Your task to perform on an android device: toggle pop-ups in chrome Image 0: 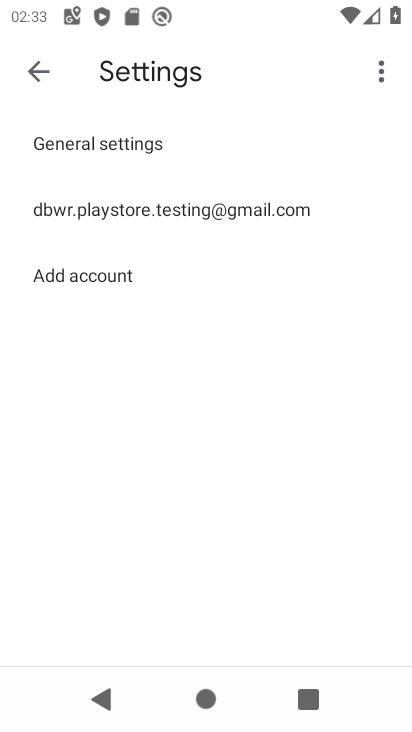
Step 0: click (226, 507)
Your task to perform on an android device: toggle pop-ups in chrome Image 1: 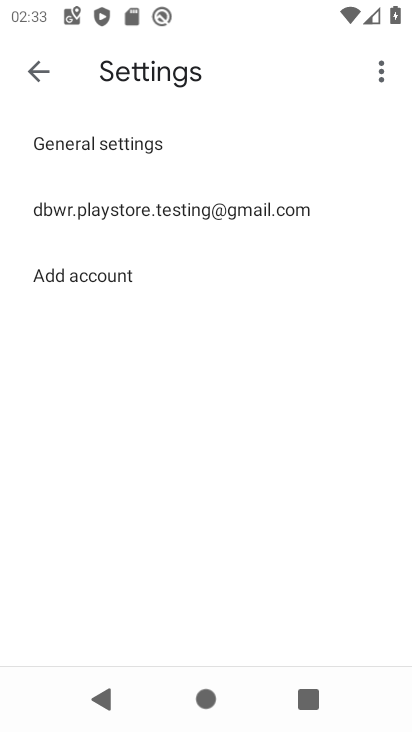
Step 1: press home button
Your task to perform on an android device: toggle pop-ups in chrome Image 2: 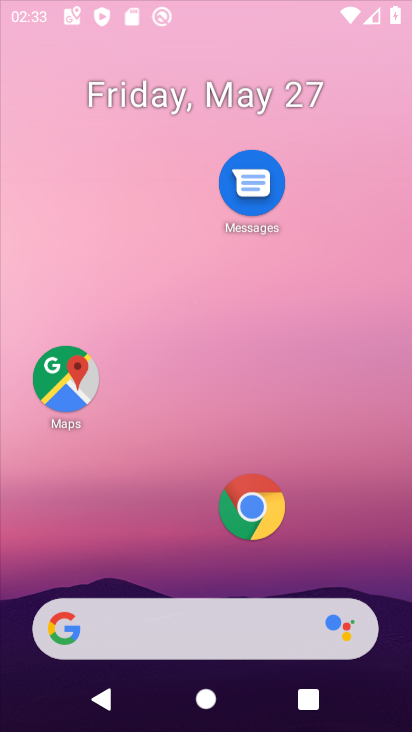
Step 2: drag from (203, 594) to (237, 117)
Your task to perform on an android device: toggle pop-ups in chrome Image 3: 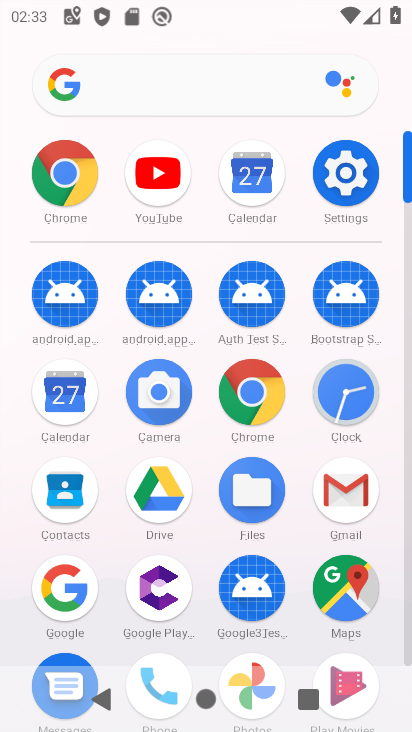
Step 3: click (244, 391)
Your task to perform on an android device: toggle pop-ups in chrome Image 4: 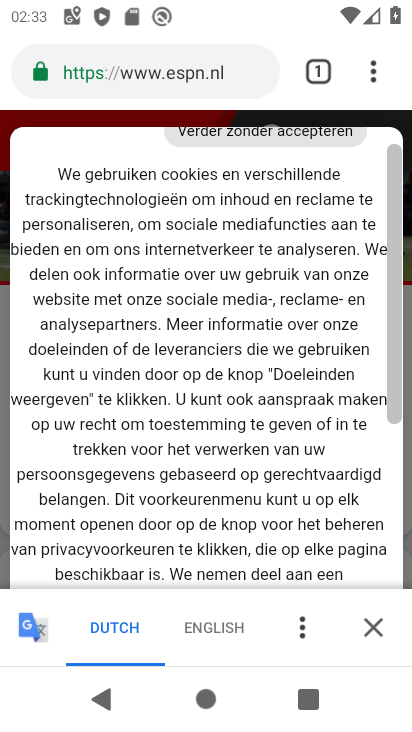
Step 4: click (370, 72)
Your task to perform on an android device: toggle pop-ups in chrome Image 5: 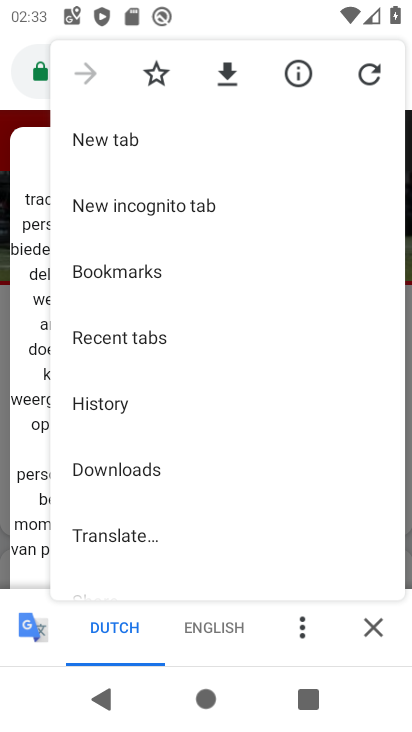
Step 5: drag from (166, 460) to (209, 206)
Your task to perform on an android device: toggle pop-ups in chrome Image 6: 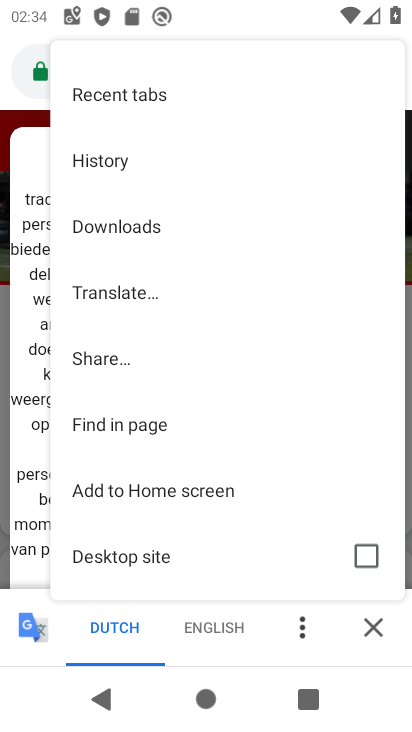
Step 6: drag from (179, 442) to (266, 192)
Your task to perform on an android device: toggle pop-ups in chrome Image 7: 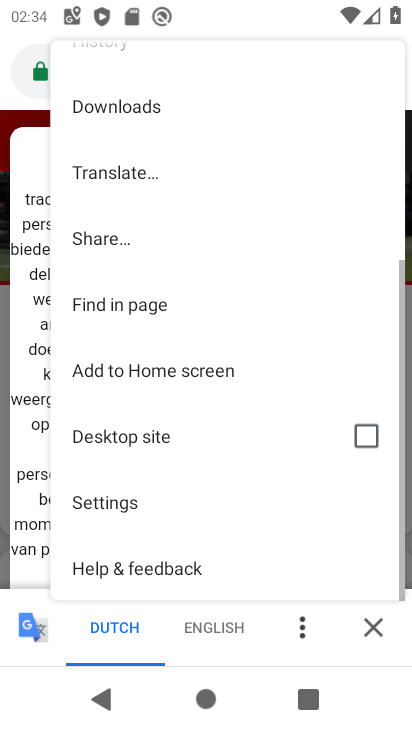
Step 7: click (172, 515)
Your task to perform on an android device: toggle pop-ups in chrome Image 8: 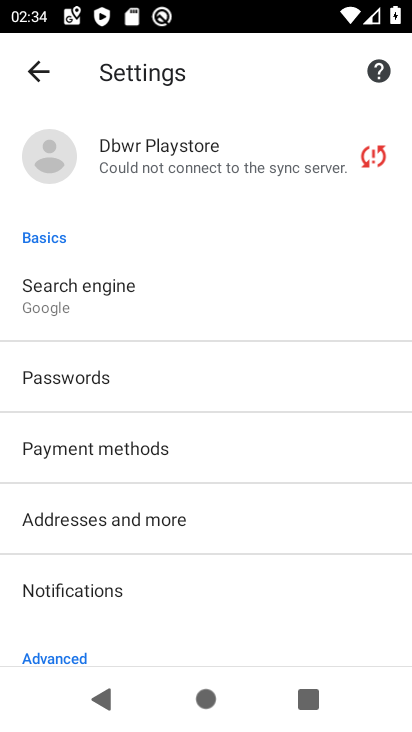
Step 8: drag from (174, 530) to (230, 296)
Your task to perform on an android device: toggle pop-ups in chrome Image 9: 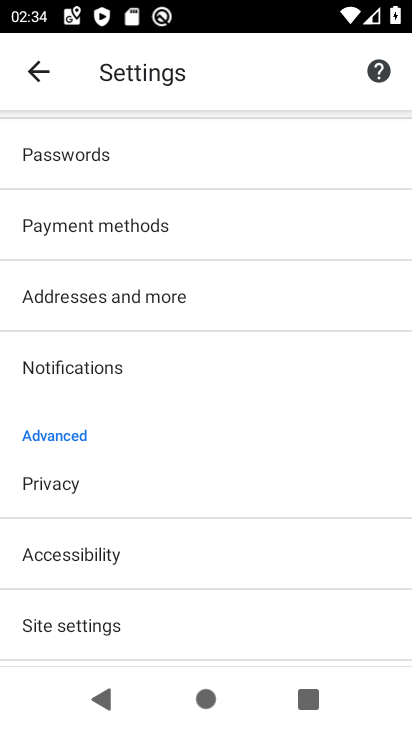
Step 9: drag from (158, 607) to (234, 263)
Your task to perform on an android device: toggle pop-ups in chrome Image 10: 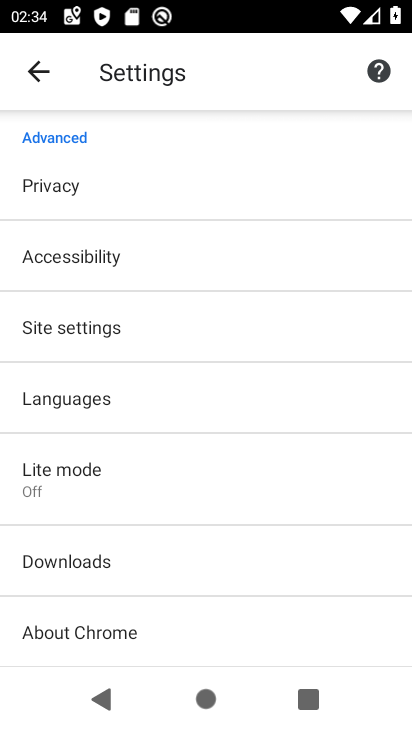
Step 10: click (168, 347)
Your task to perform on an android device: toggle pop-ups in chrome Image 11: 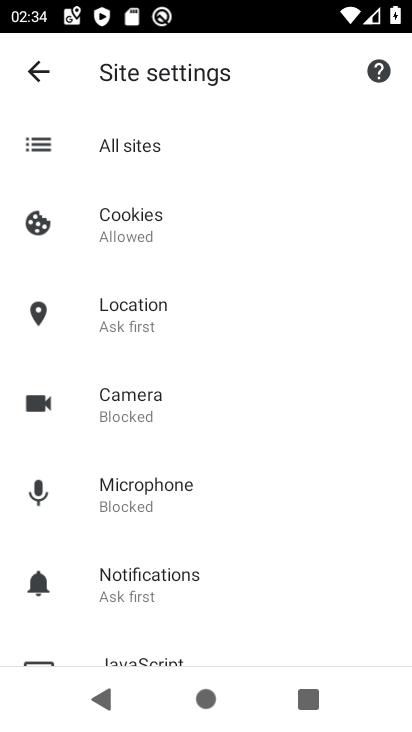
Step 11: drag from (197, 524) to (303, 308)
Your task to perform on an android device: toggle pop-ups in chrome Image 12: 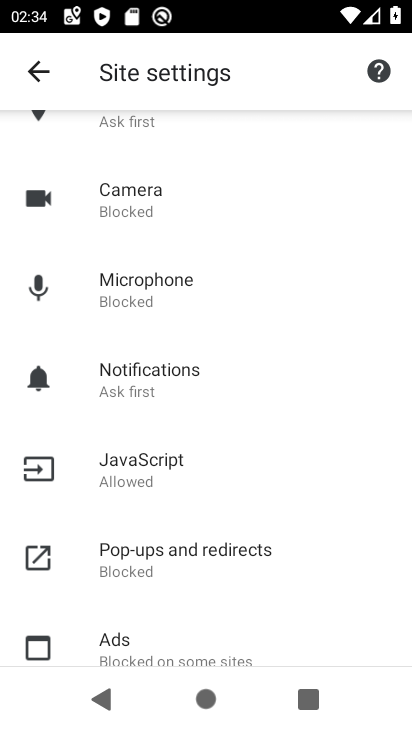
Step 12: click (171, 560)
Your task to perform on an android device: toggle pop-ups in chrome Image 13: 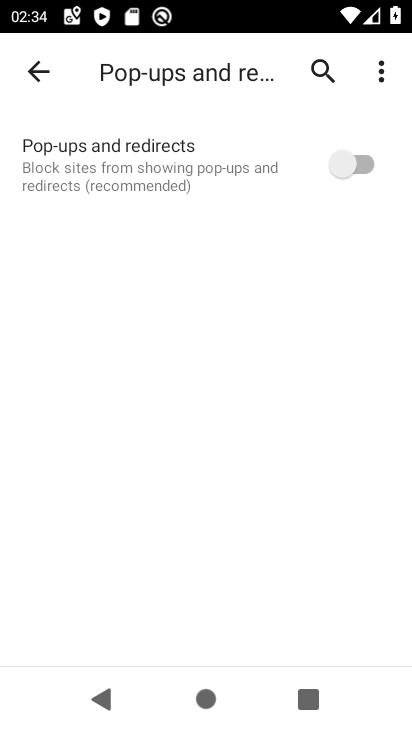
Step 13: click (320, 165)
Your task to perform on an android device: toggle pop-ups in chrome Image 14: 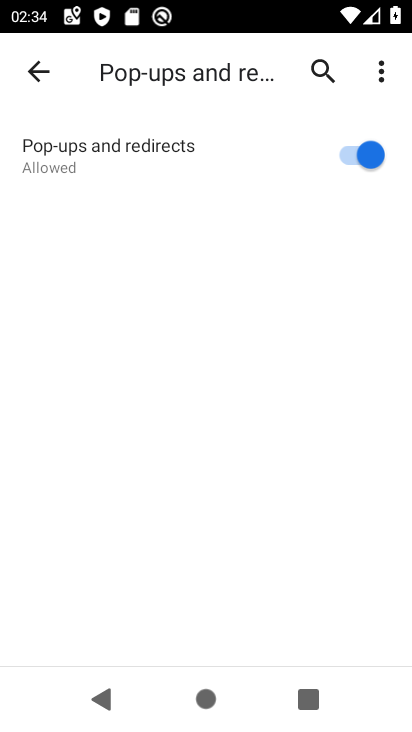
Step 14: task complete